Your task to perform on an android device: check battery use Image 0: 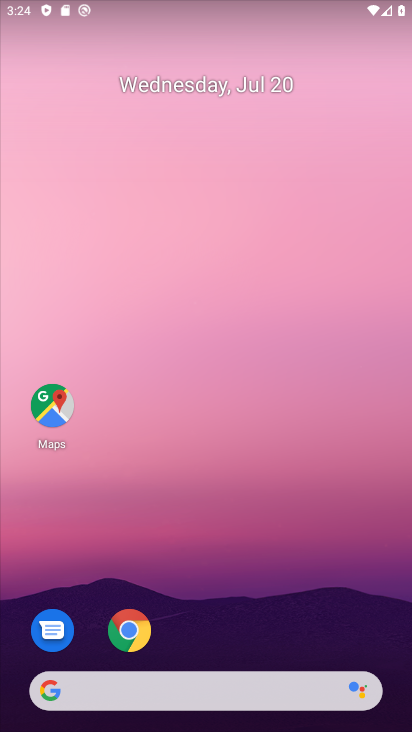
Step 0: drag from (283, 649) to (280, 116)
Your task to perform on an android device: check battery use Image 1: 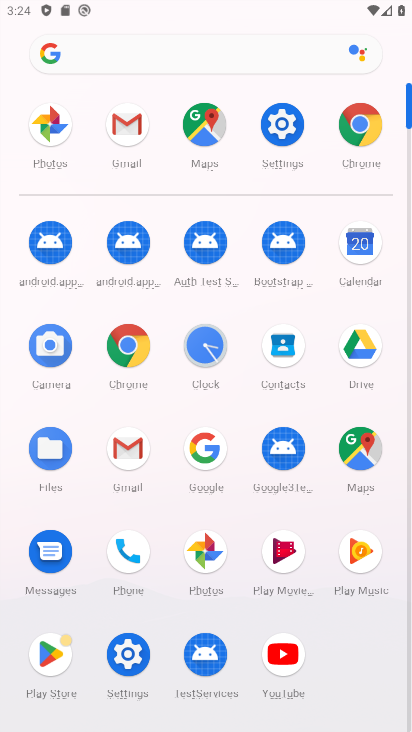
Step 1: click (285, 137)
Your task to perform on an android device: check battery use Image 2: 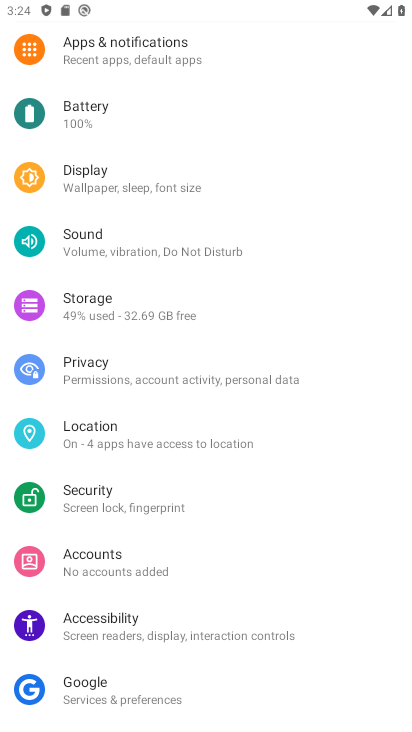
Step 2: click (79, 125)
Your task to perform on an android device: check battery use Image 3: 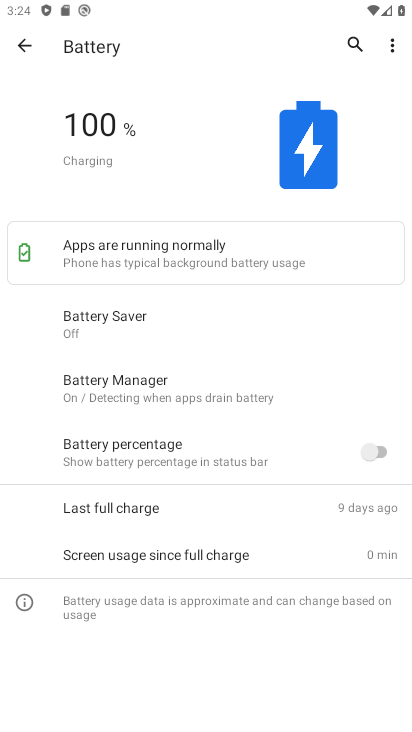
Step 3: click (398, 48)
Your task to perform on an android device: check battery use Image 4: 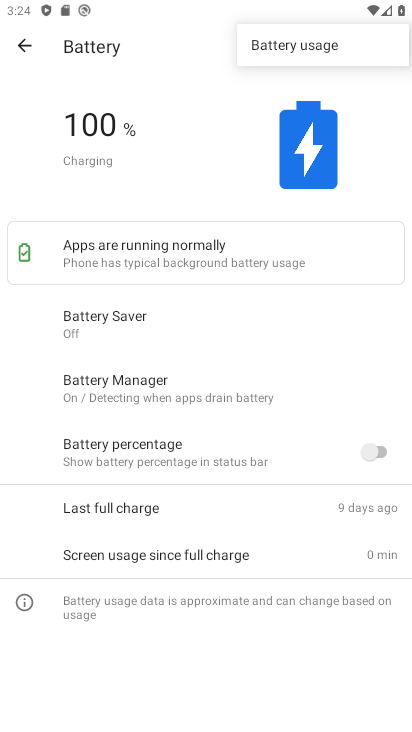
Step 4: click (286, 48)
Your task to perform on an android device: check battery use Image 5: 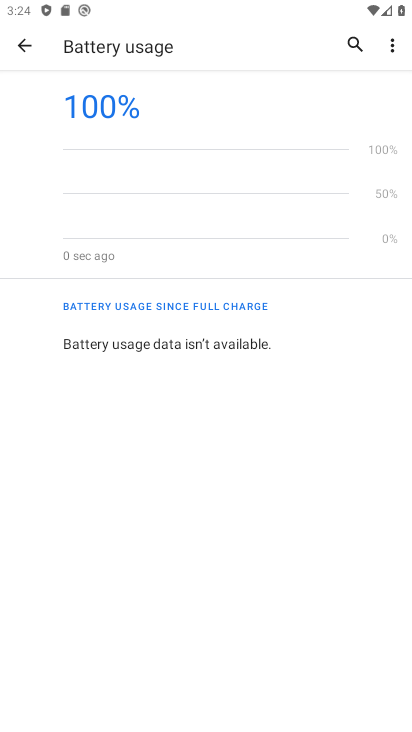
Step 5: task complete